Your task to perform on an android device: What's the weather going to be this weekend? Image 0: 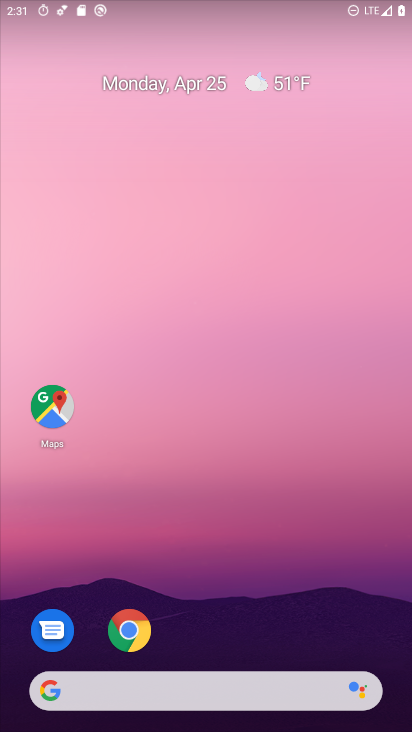
Step 0: drag from (179, 666) to (271, 364)
Your task to perform on an android device: What's the weather going to be this weekend? Image 1: 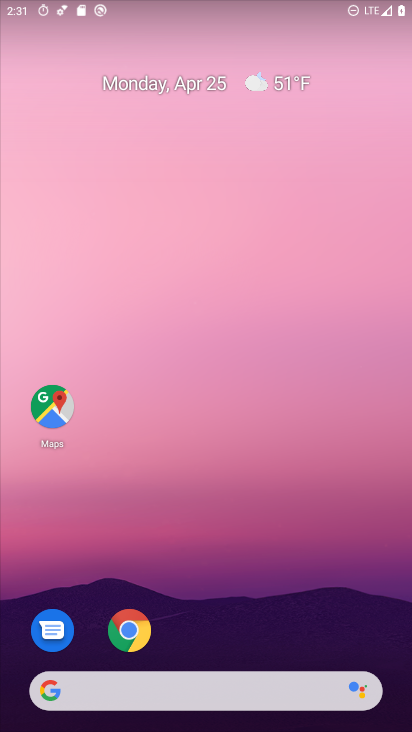
Step 1: drag from (219, 574) to (208, 396)
Your task to perform on an android device: What's the weather going to be this weekend? Image 2: 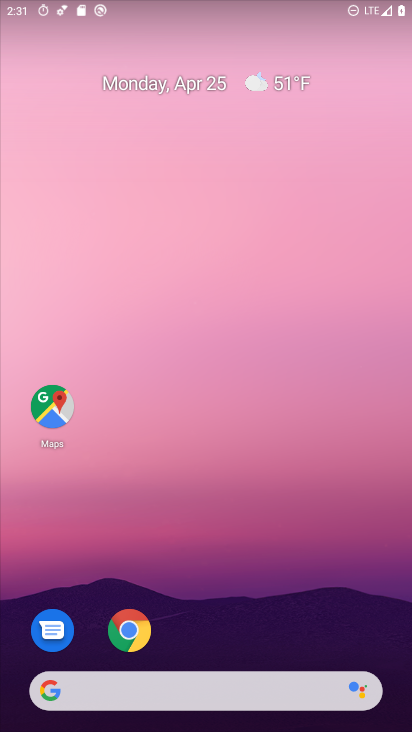
Step 2: drag from (192, 591) to (289, 275)
Your task to perform on an android device: What's the weather going to be this weekend? Image 3: 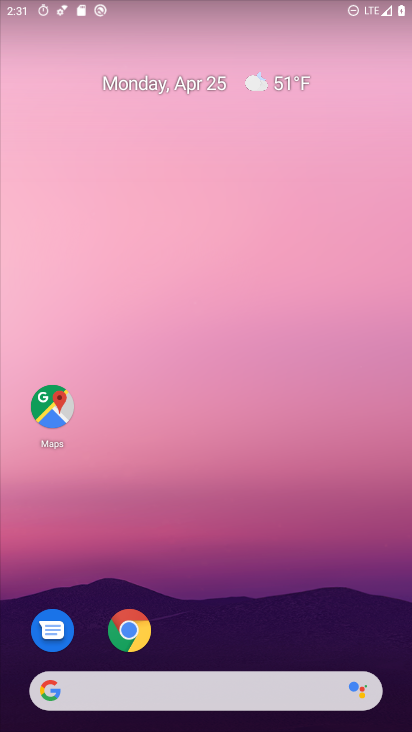
Step 3: drag from (174, 637) to (293, 229)
Your task to perform on an android device: What's the weather going to be this weekend? Image 4: 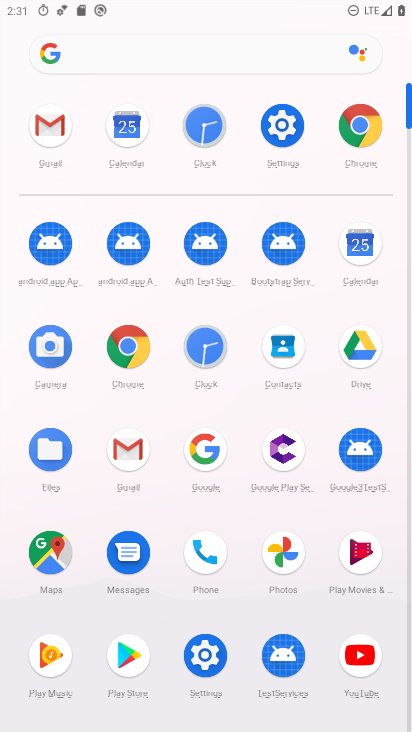
Step 4: click (179, 48)
Your task to perform on an android device: What's the weather going to be this weekend? Image 5: 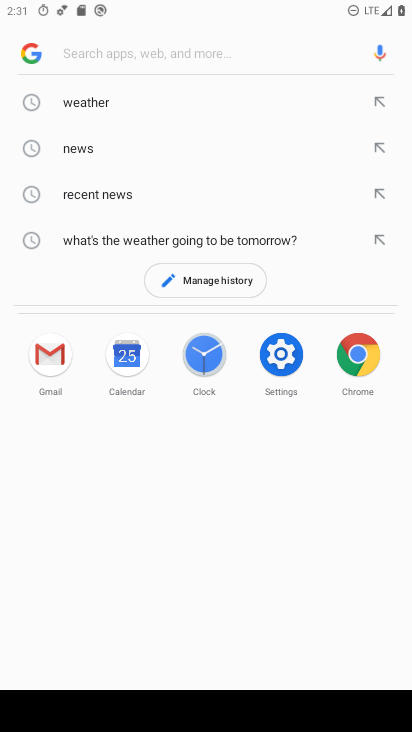
Step 5: click (168, 48)
Your task to perform on an android device: What's the weather going to be this weekend? Image 6: 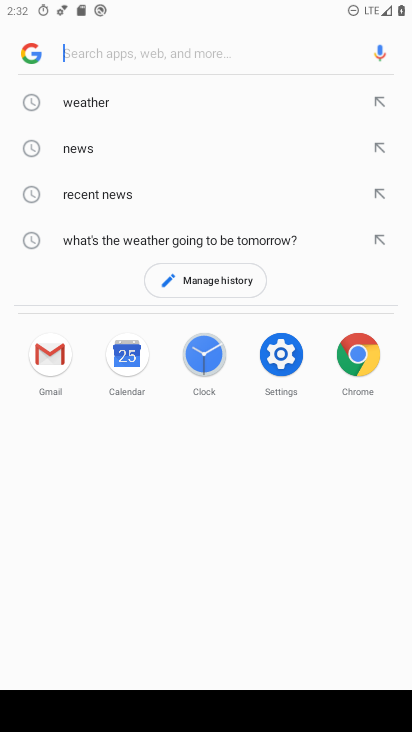
Step 6: type "what's the weather going to be this weekend"
Your task to perform on an android device: What's the weather going to be this weekend? Image 7: 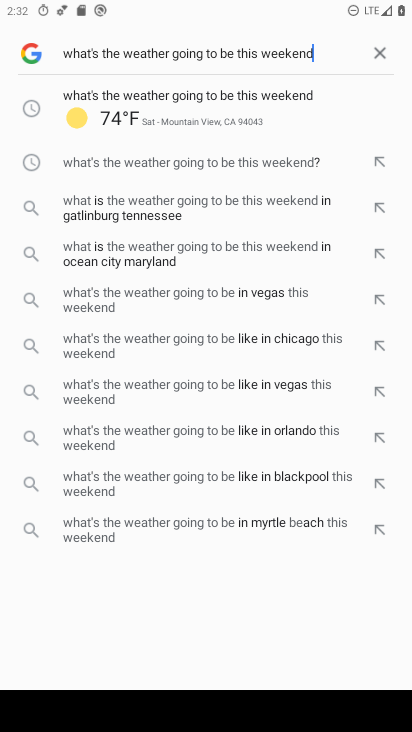
Step 7: click (157, 118)
Your task to perform on an android device: What's the weather going to be this weekend? Image 8: 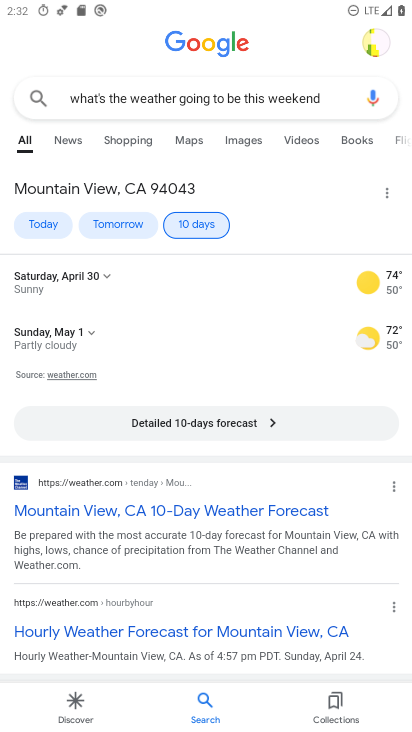
Step 8: task complete